Your task to perform on an android device: change notification settings in the gmail app Image 0: 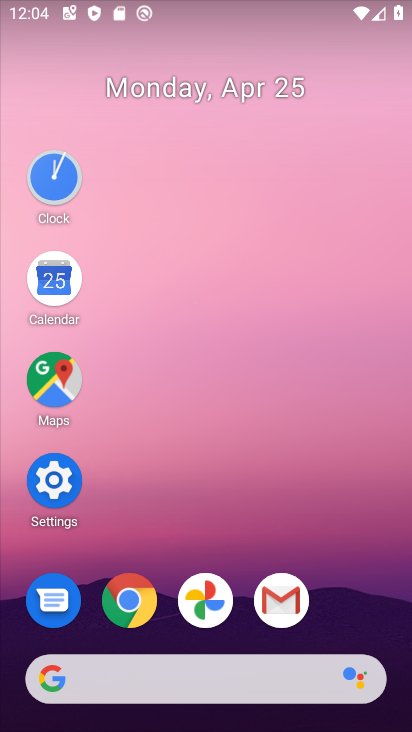
Step 0: click (281, 604)
Your task to perform on an android device: change notification settings in the gmail app Image 1: 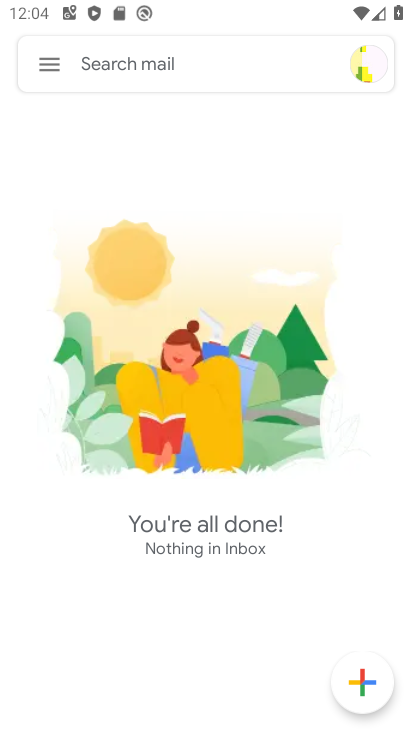
Step 1: click (44, 61)
Your task to perform on an android device: change notification settings in the gmail app Image 2: 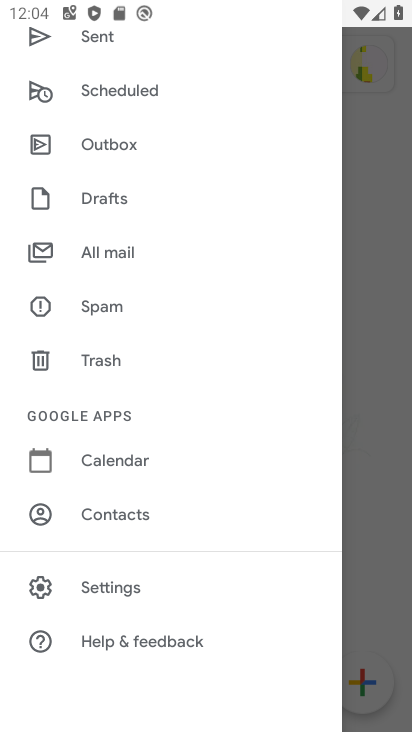
Step 2: click (105, 582)
Your task to perform on an android device: change notification settings in the gmail app Image 3: 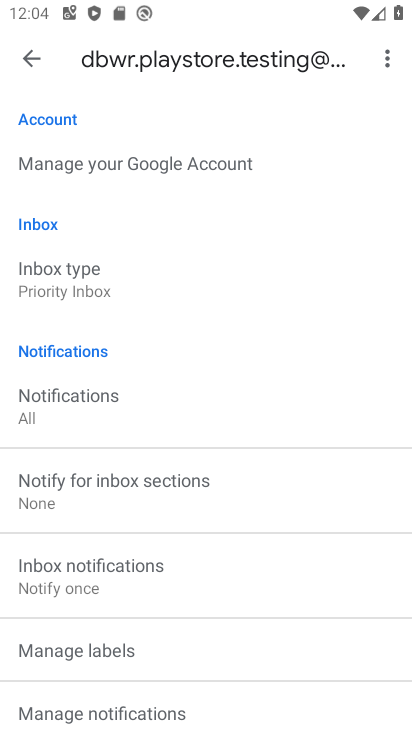
Step 3: click (61, 390)
Your task to perform on an android device: change notification settings in the gmail app Image 4: 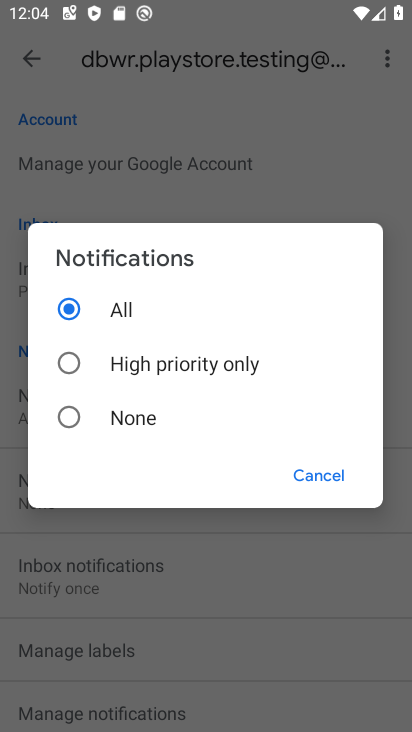
Step 4: click (73, 417)
Your task to perform on an android device: change notification settings in the gmail app Image 5: 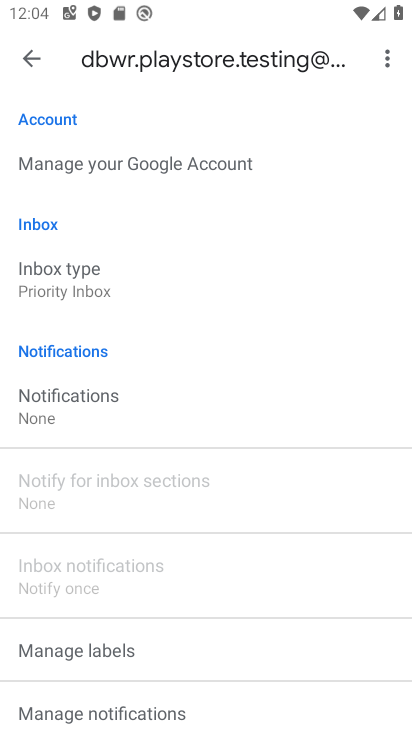
Step 5: task complete